Your task to perform on an android device: open app "Google Play Music" (install if not already installed) Image 0: 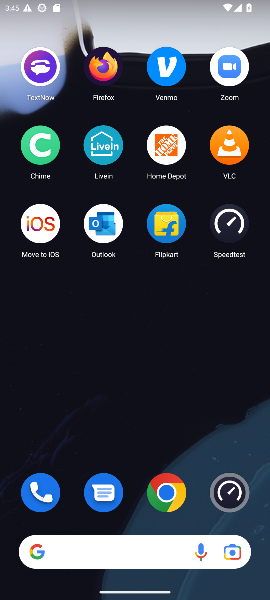
Step 0: click (141, 54)
Your task to perform on an android device: open app "Google Play Music" (install if not already installed) Image 1: 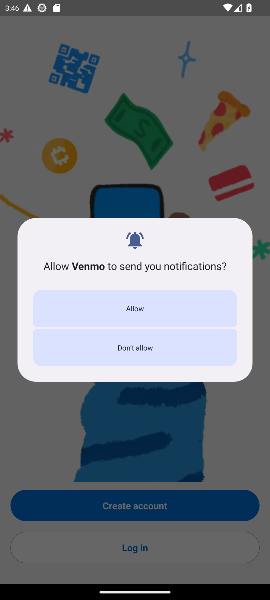
Step 1: press home button
Your task to perform on an android device: open app "Google Play Music" (install if not already installed) Image 2: 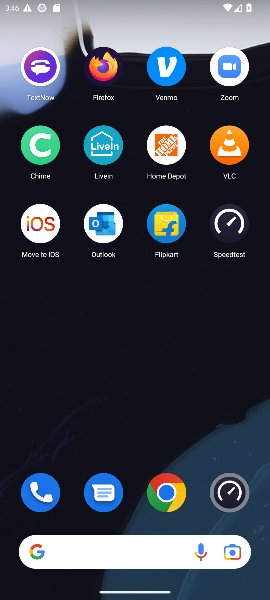
Step 2: drag from (130, 515) to (121, 90)
Your task to perform on an android device: open app "Google Play Music" (install if not already installed) Image 3: 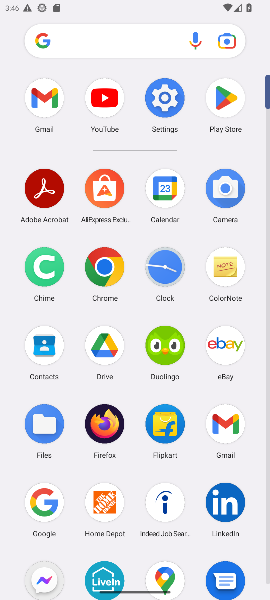
Step 3: click (238, 115)
Your task to perform on an android device: open app "Google Play Music" (install if not already installed) Image 4: 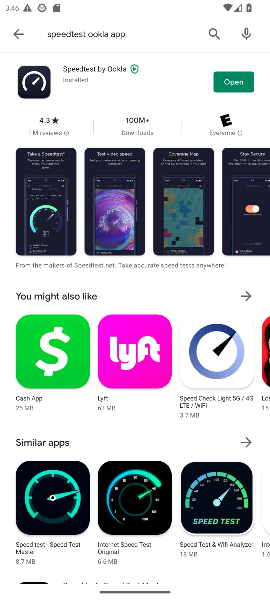
Step 4: click (220, 45)
Your task to perform on an android device: open app "Google Play Music" (install if not already installed) Image 5: 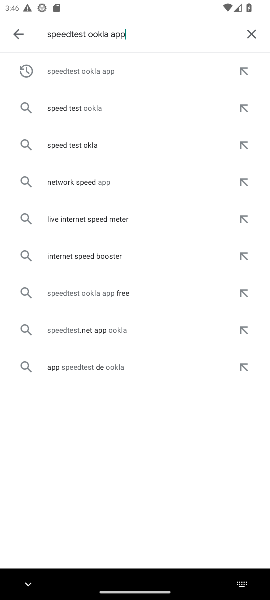
Step 5: click (253, 38)
Your task to perform on an android device: open app "Google Play Music" (install if not already installed) Image 6: 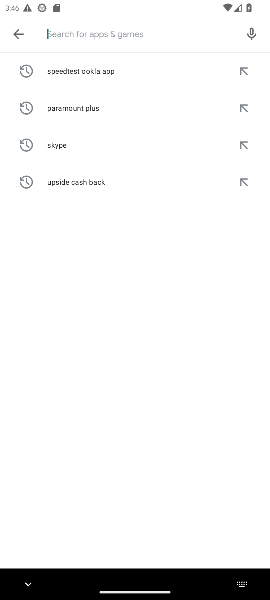
Step 6: type "google play "
Your task to perform on an android device: open app "Google Play Music" (install if not already installed) Image 7: 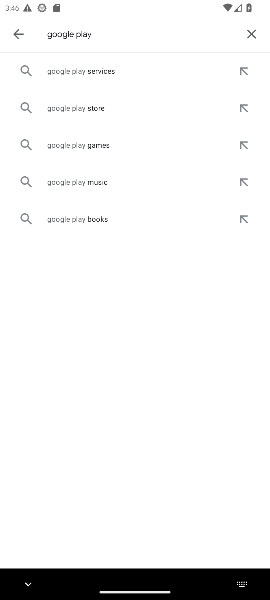
Step 7: type "music"
Your task to perform on an android device: open app "Google Play Music" (install if not already installed) Image 8: 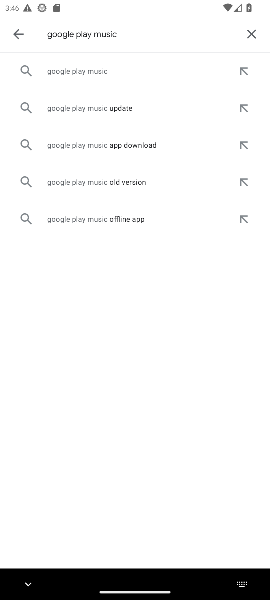
Step 8: click (153, 79)
Your task to perform on an android device: open app "Google Play Music" (install if not already installed) Image 9: 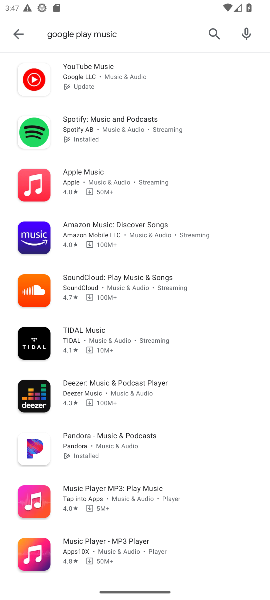
Step 9: task complete